Your task to perform on an android device: Open Youtube and go to the subscriptions tab Image 0: 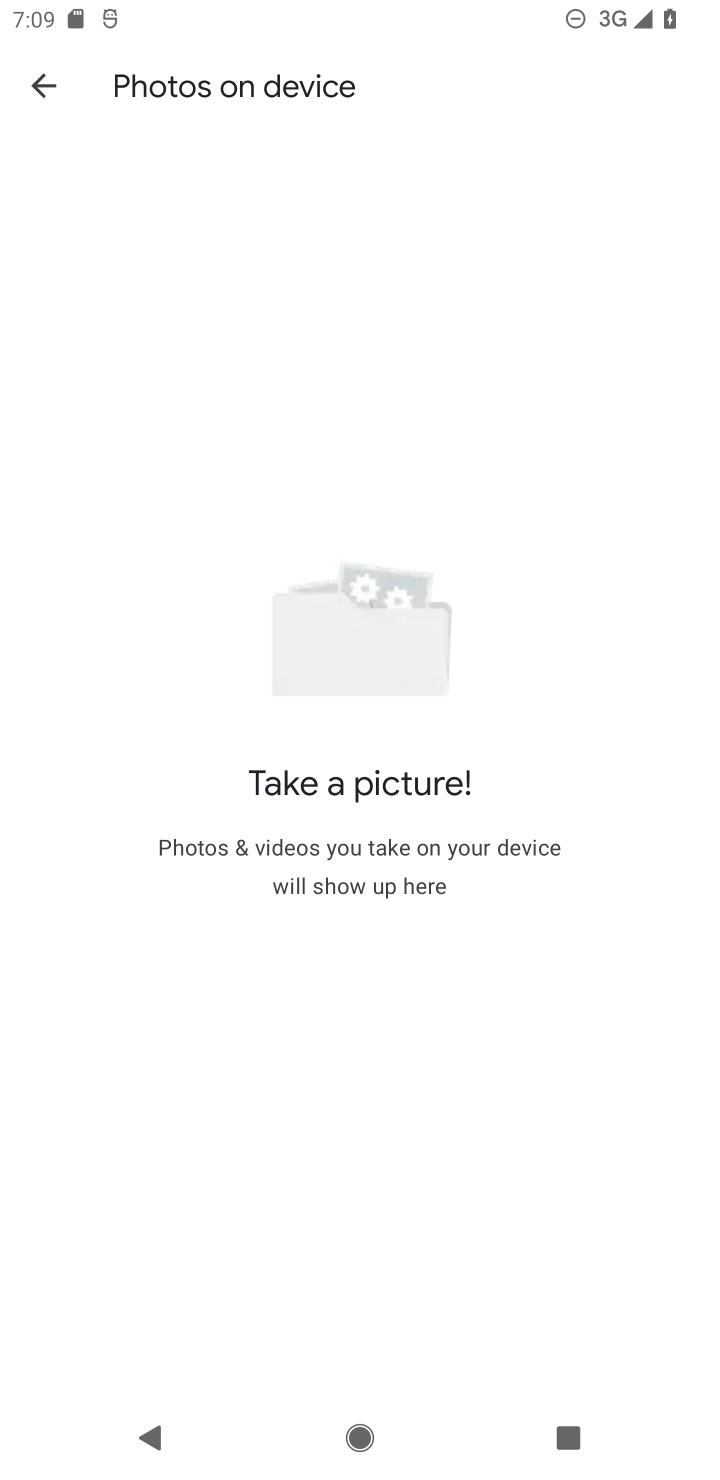
Step 0: press home button
Your task to perform on an android device: Open Youtube and go to the subscriptions tab Image 1: 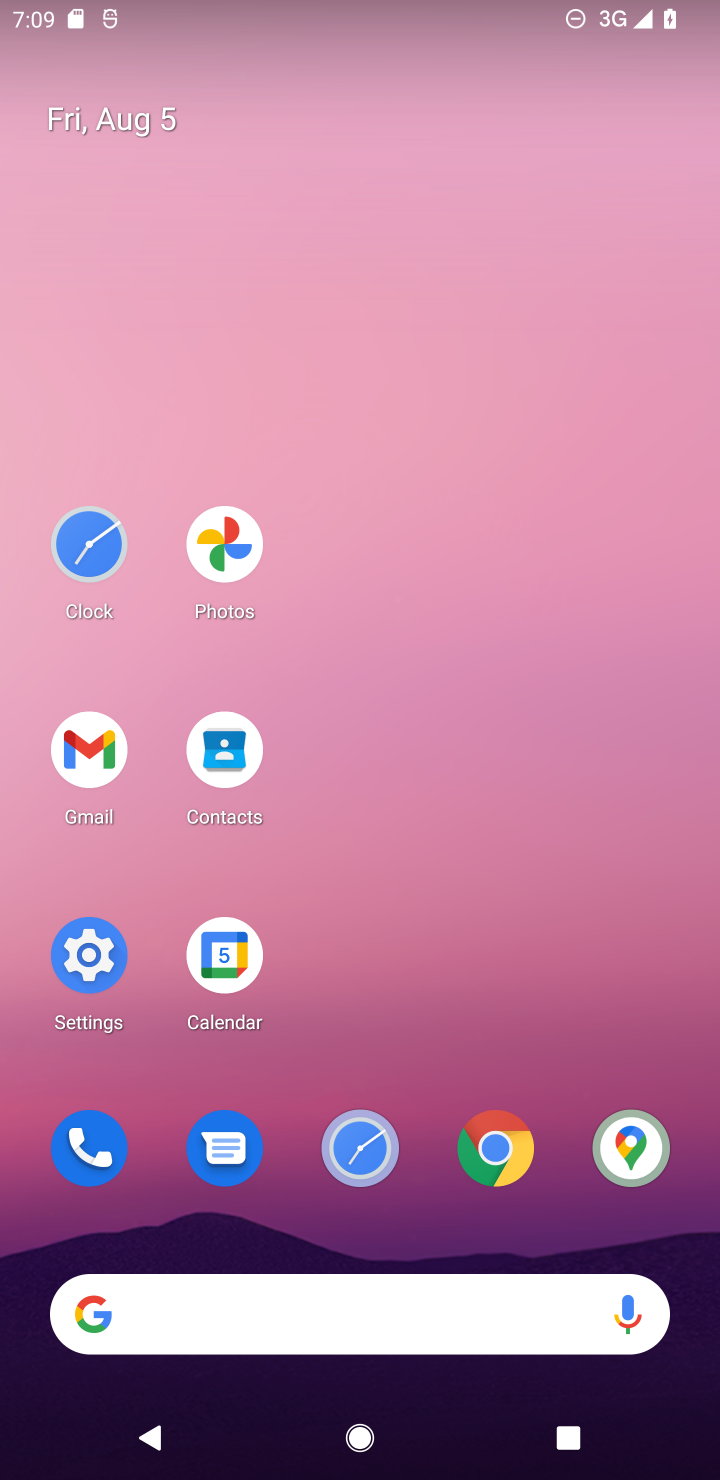
Step 1: drag from (515, 962) to (287, 0)
Your task to perform on an android device: Open Youtube and go to the subscriptions tab Image 2: 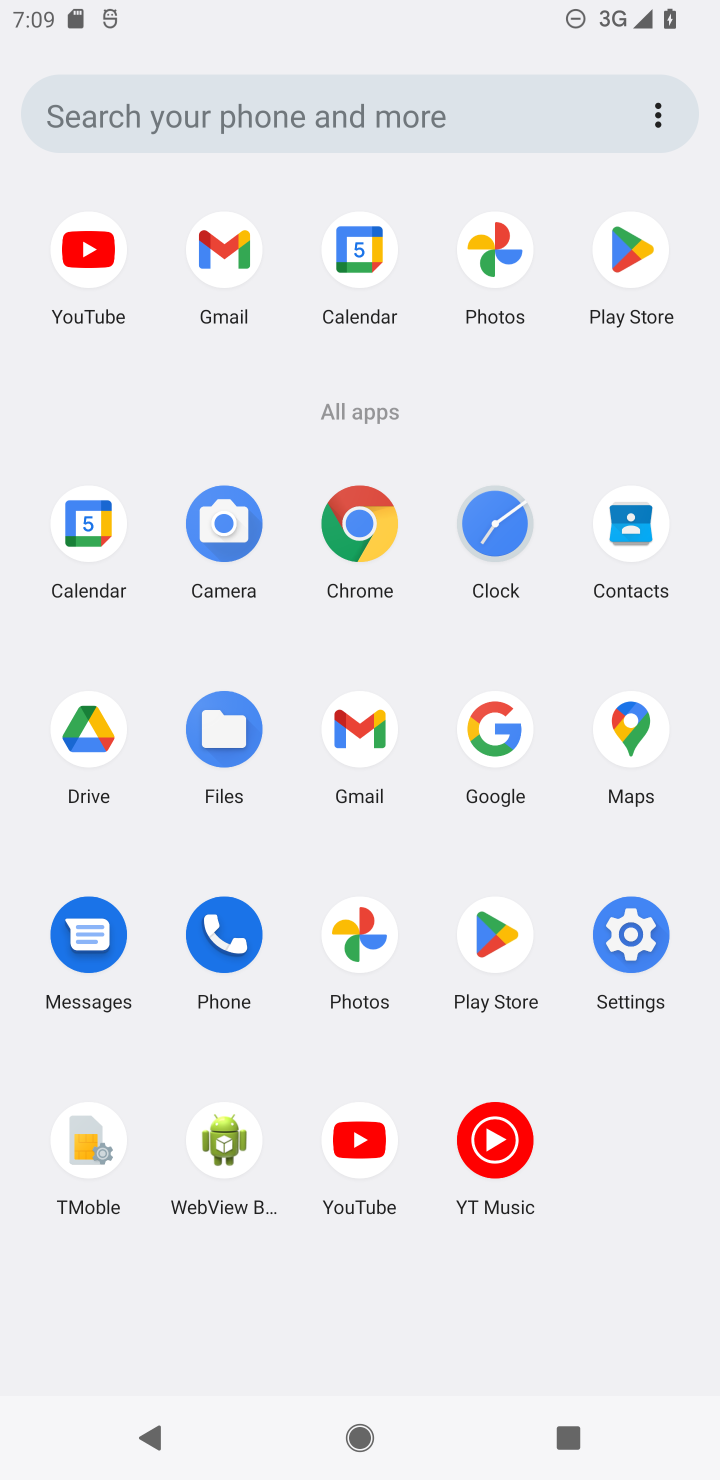
Step 2: click (362, 1146)
Your task to perform on an android device: Open Youtube and go to the subscriptions tab Image 3: 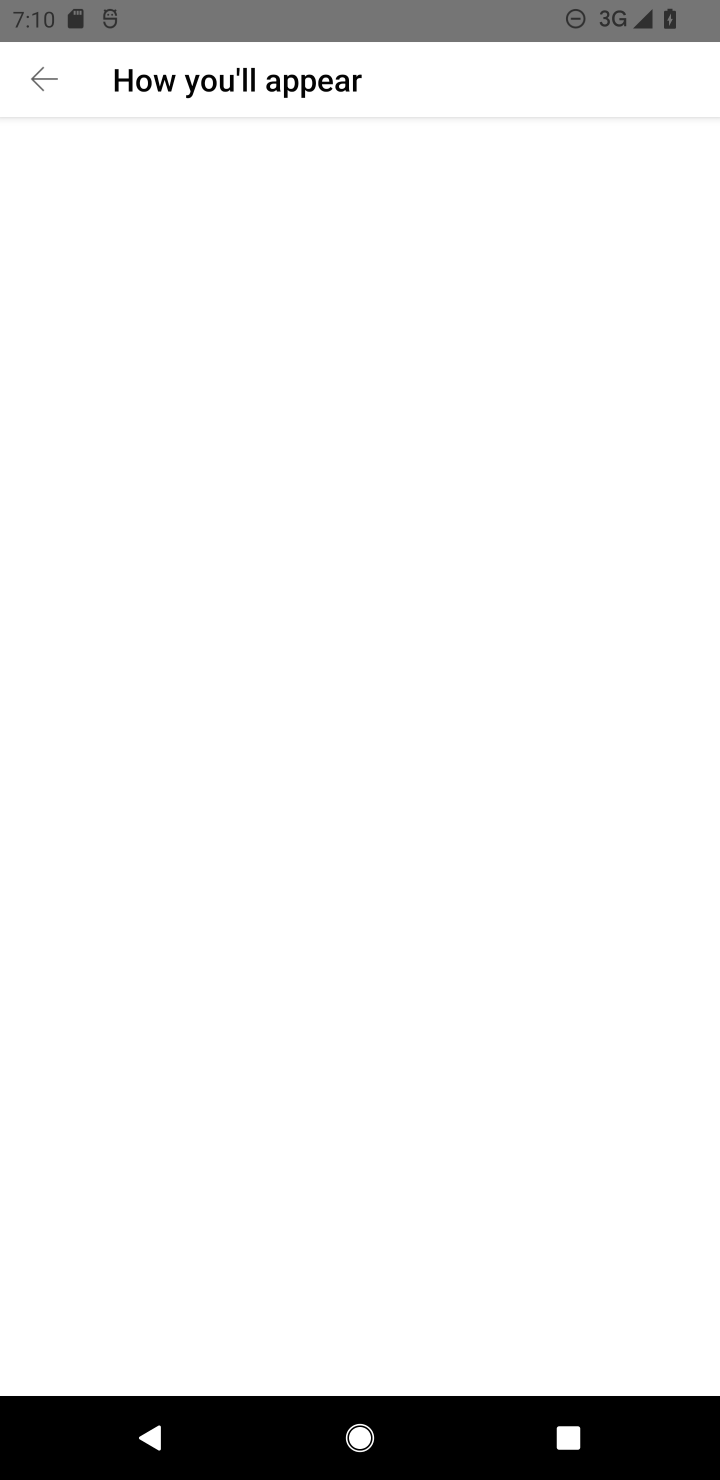
Step 3: click (36, 81)
Your task to perform on an android device: Open Youtube and go to the subscriptions tab Image 4: 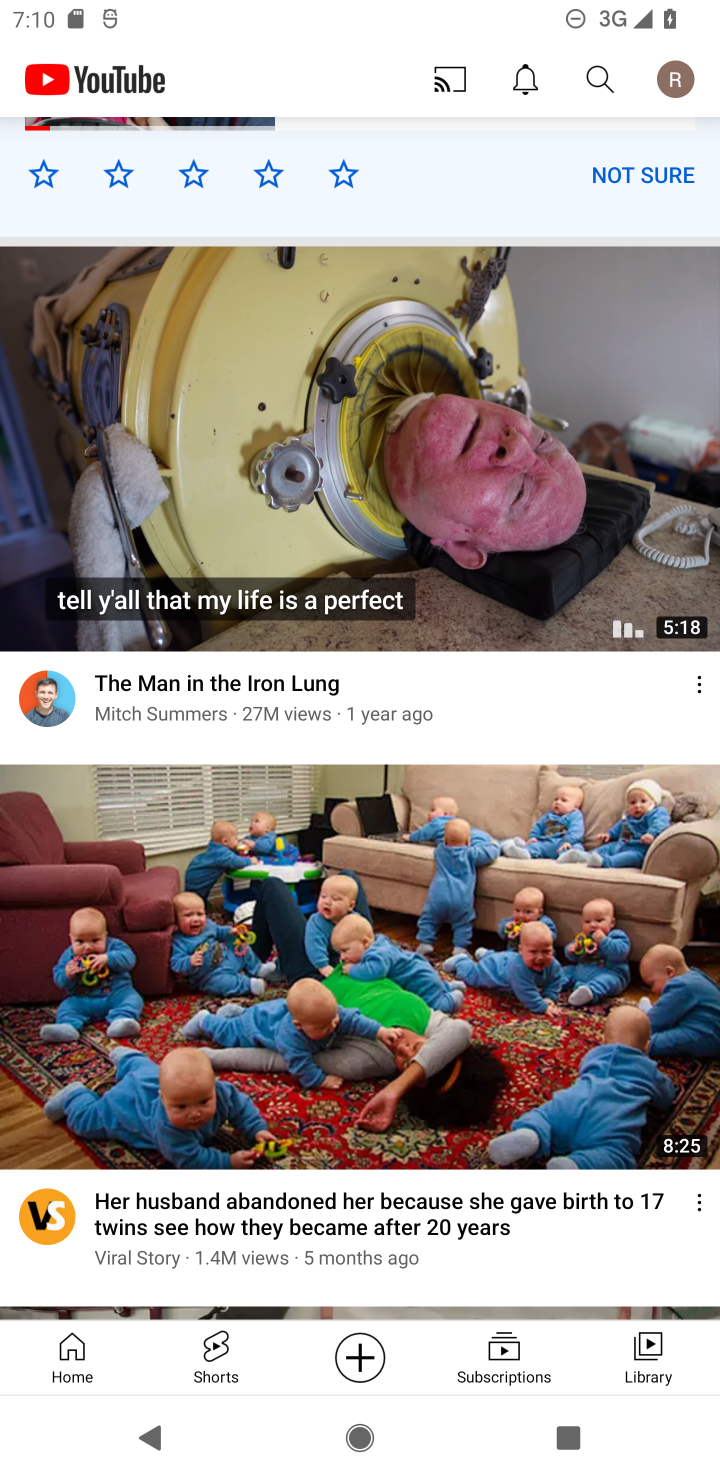
Step 4: click (489, 1352)
Your task to perform on an android device: Open Youtube and go to the subscriptions tab Image 5: 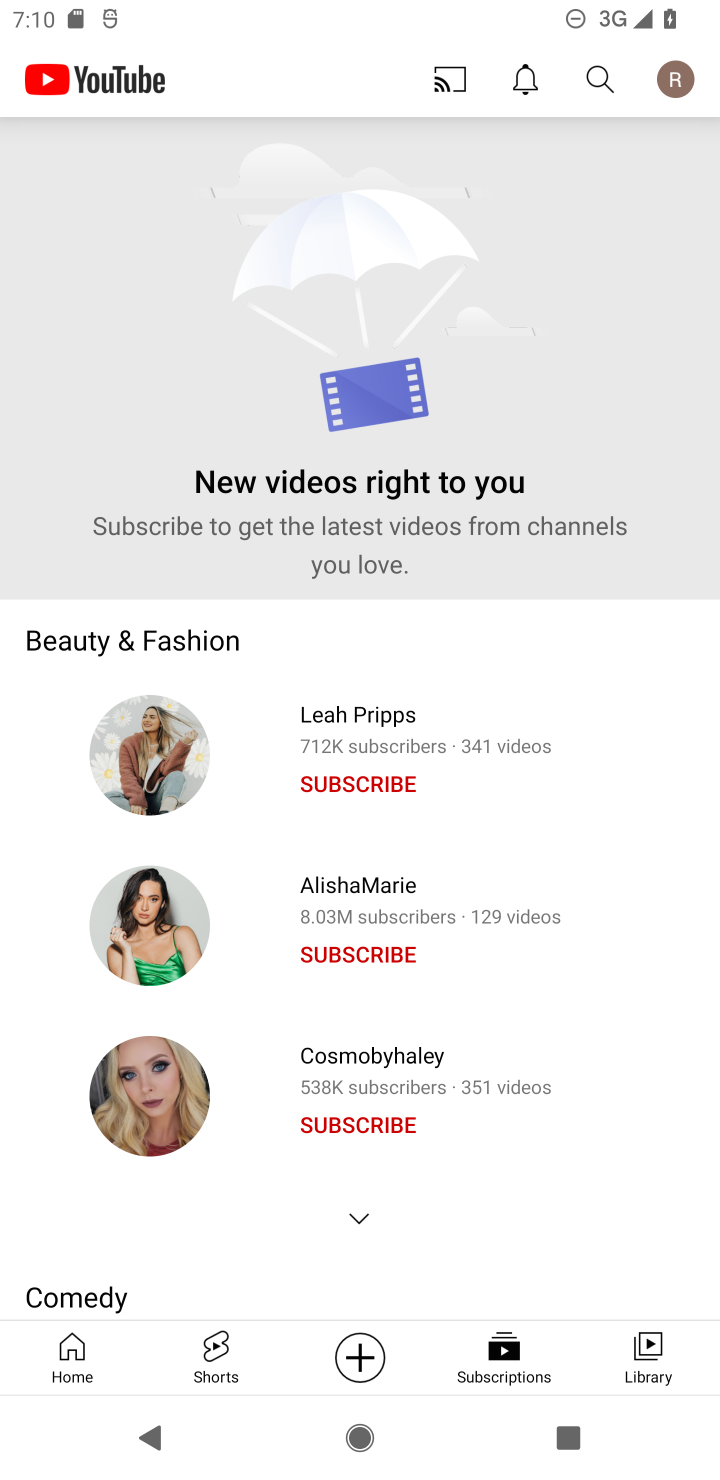
Step 5: task complete